Your task to perform on an android device: Open the calculator Image 0: 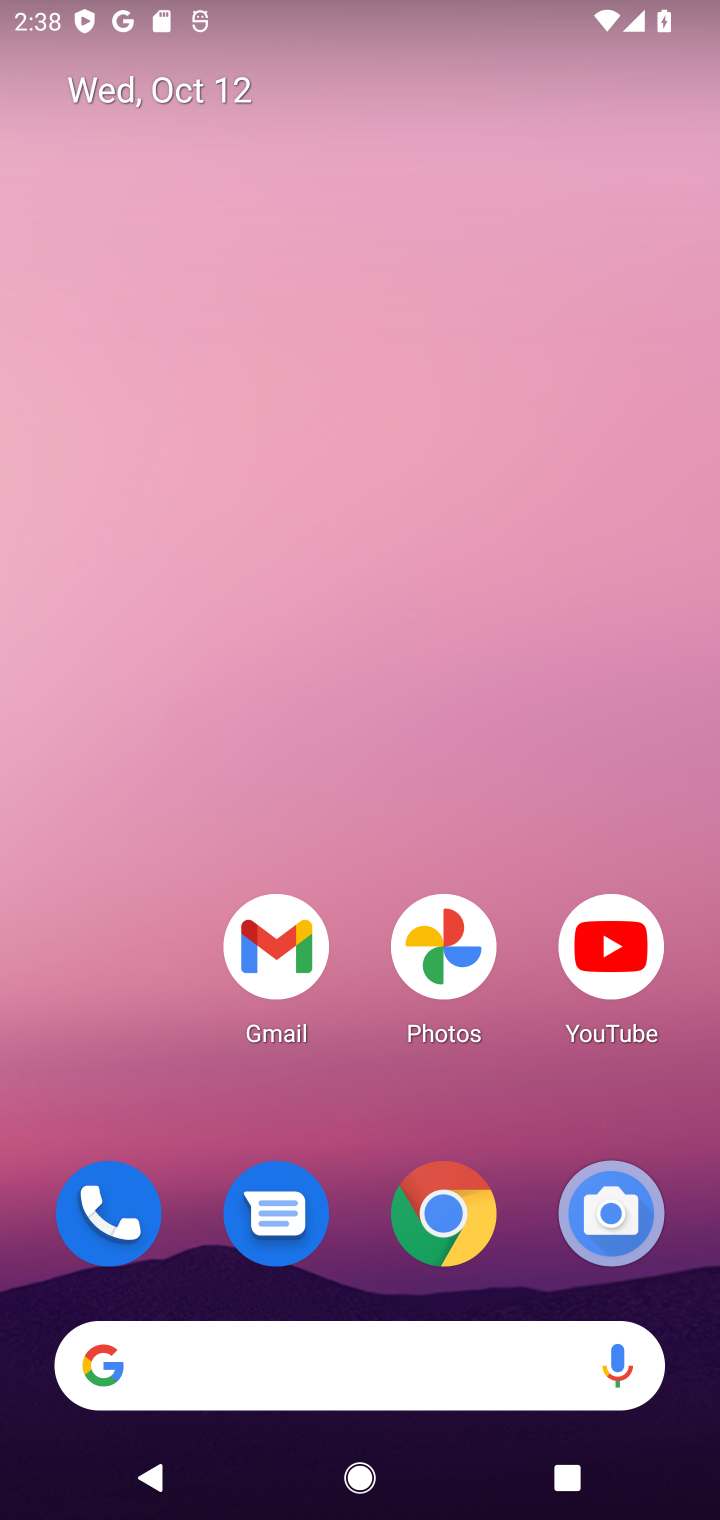
Step 0: drag from (230, 979) to (230, 10)
Your task to perform on an android device: Open the calculator Image 1: 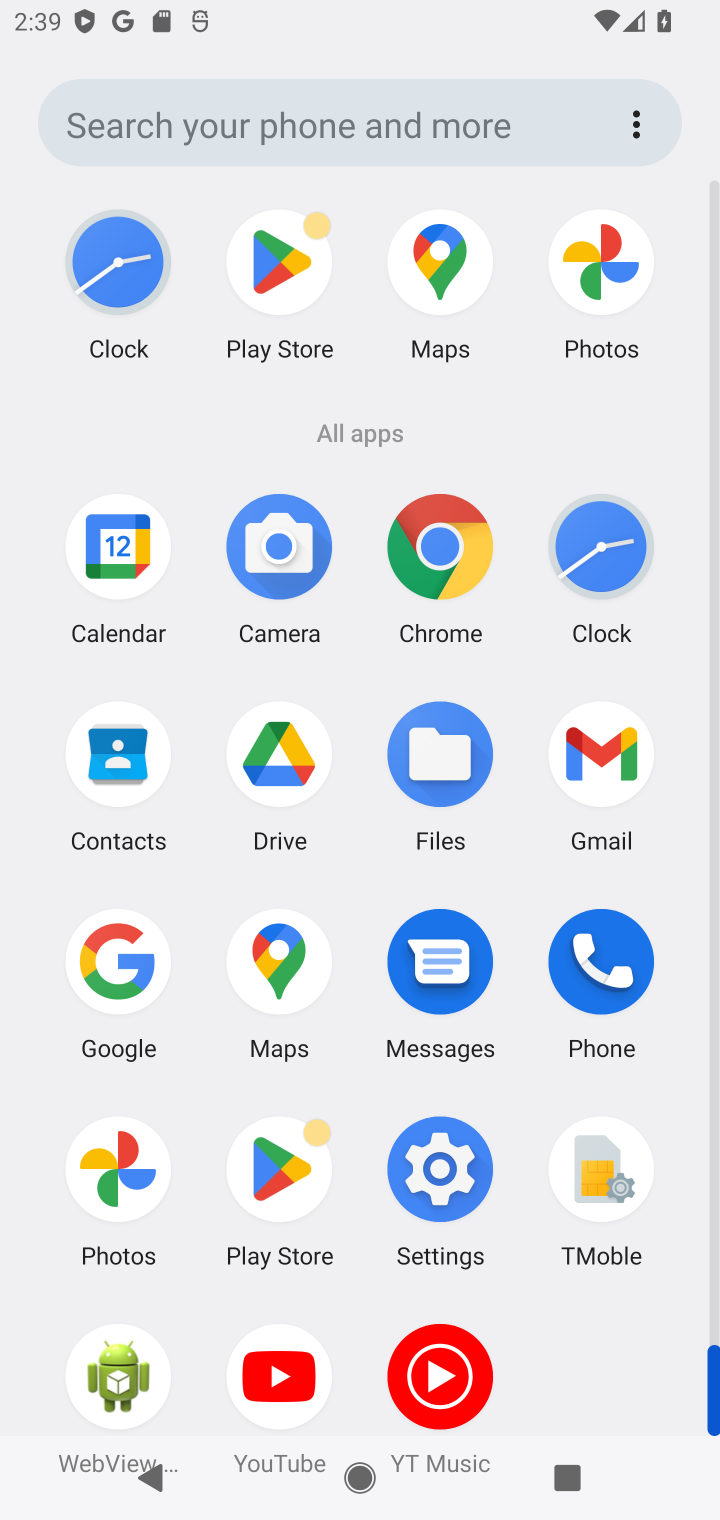
Step 1: task complete